Your task to perform on an android device: remove spam from my inbox in the gmail app Image 0: 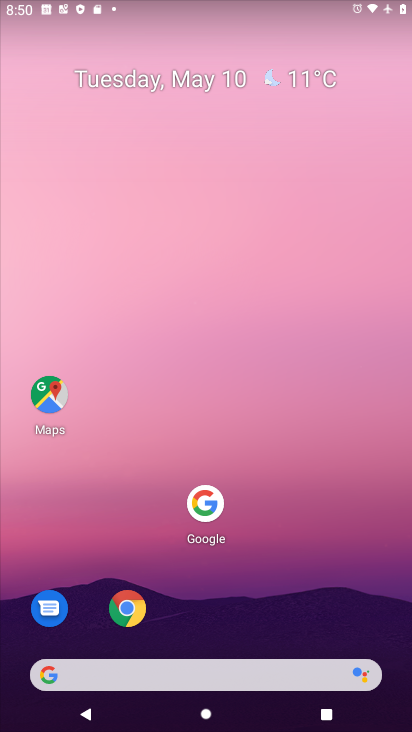
Step 0: press home button
Your task to perform on an android device: remove spam from my inbox in the gmail app Image 1: 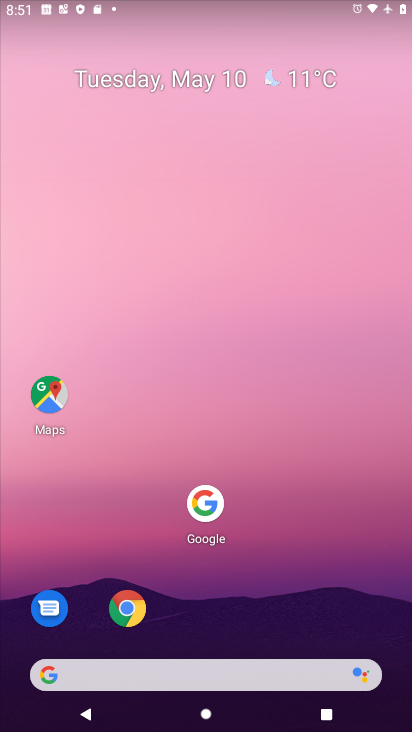
Step 1: drag from (151, 681) to (219, 216)
Your task to perform on an android device: remove spam from my inbox in the gmail app Image 2: 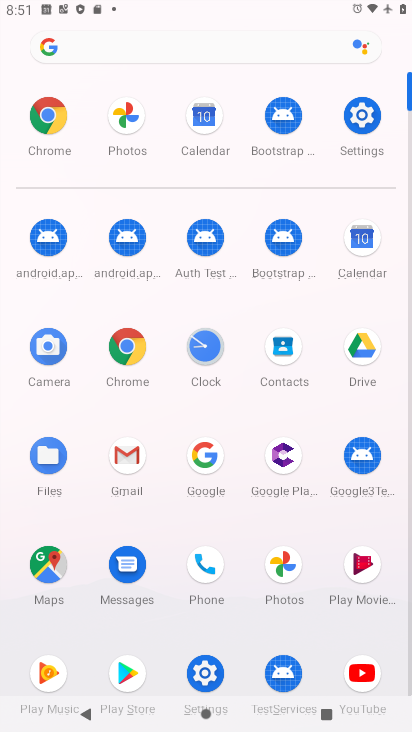
Step 2: click (120, 468)
Your task to perform on an android device: remove spam from my inbox in the gmail app Image 3: 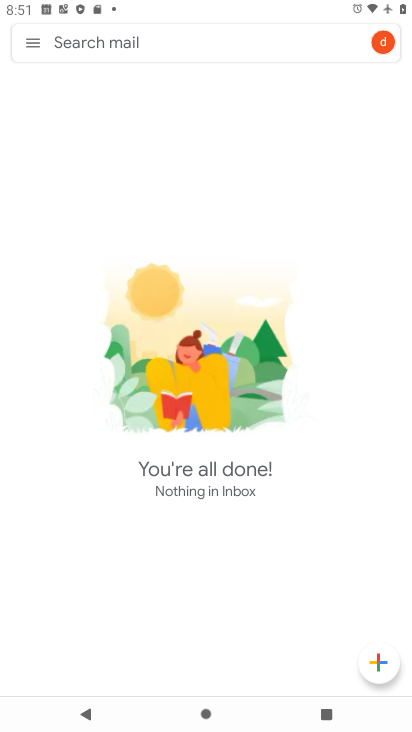
Step 3: click (29, 46)
Your task to perform on an android device: remove spam from my inbox in the gmail app Image 4: 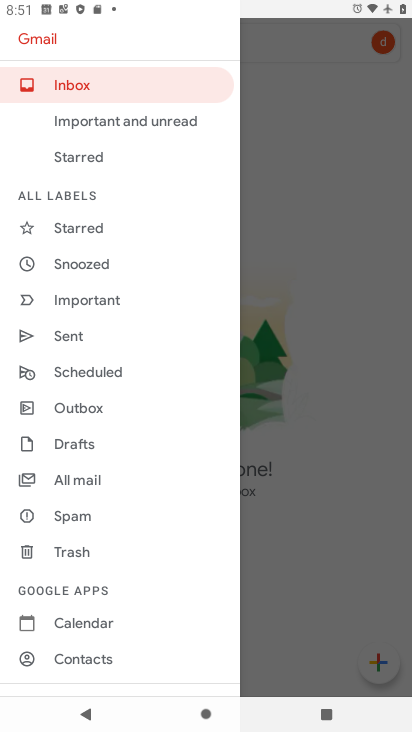
Step 4: click (86, 512)
Your task to perform on an android device: remove spam from my inbox in the gmail app Image 5: 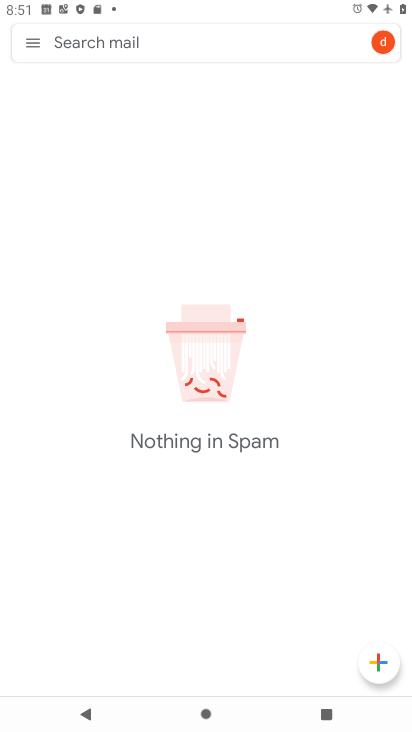
Step 5: task complete